Your task to perform on an android device: find which apps use the phone's location Image 0: 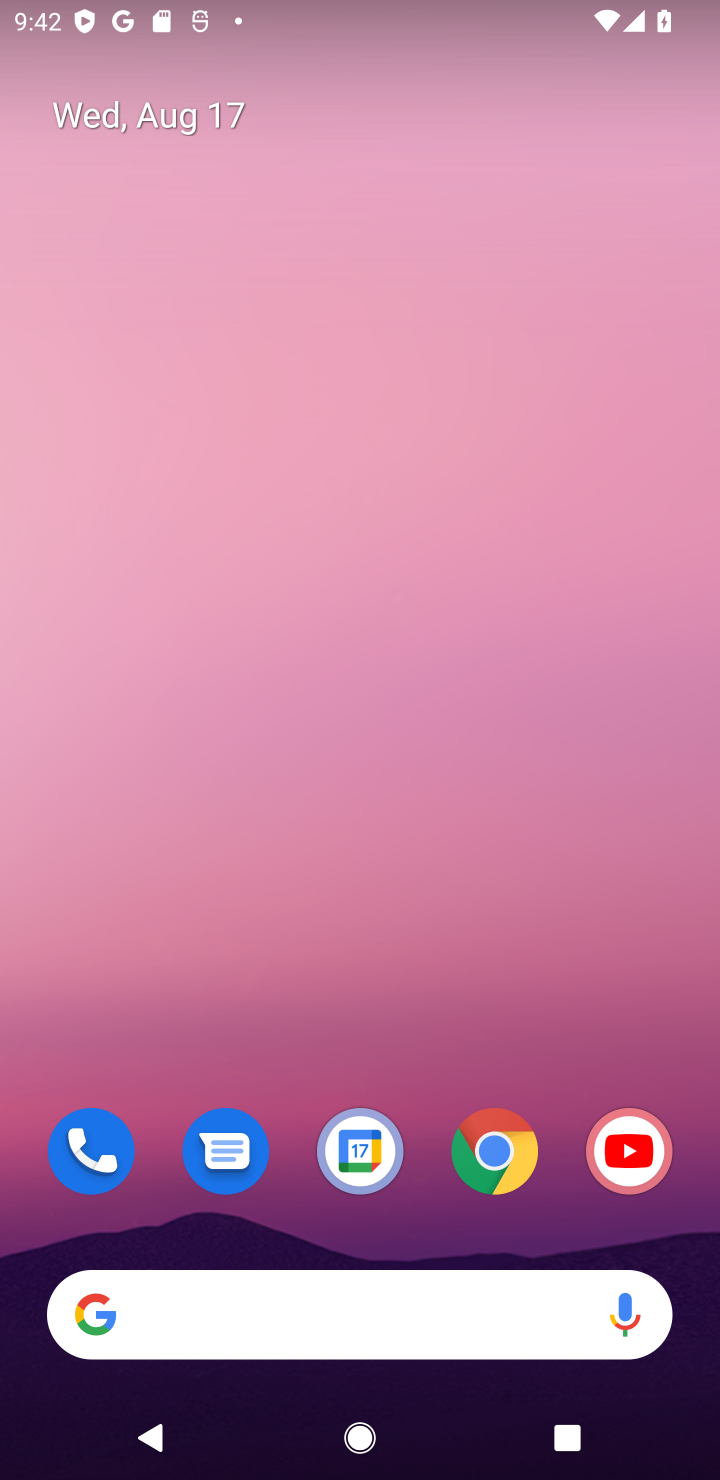
Step 0: drag from (327, 1202) to (133, 137)
Your task to perform on an android device: find which apps use the phone's location Image 1: 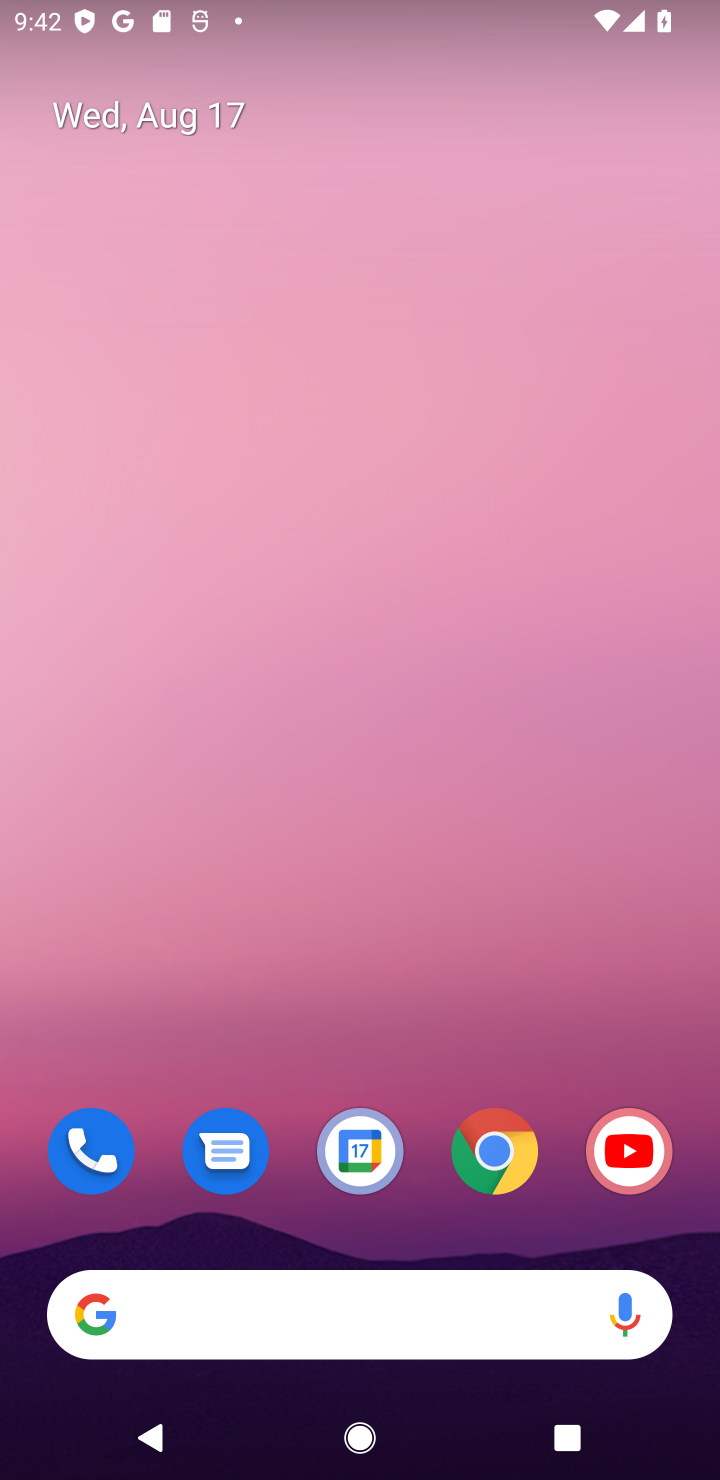
Step 1: drag from (336, 528) to (336, 444)
Your task to perform on an android device: find which apps use the phone's location Image 2: 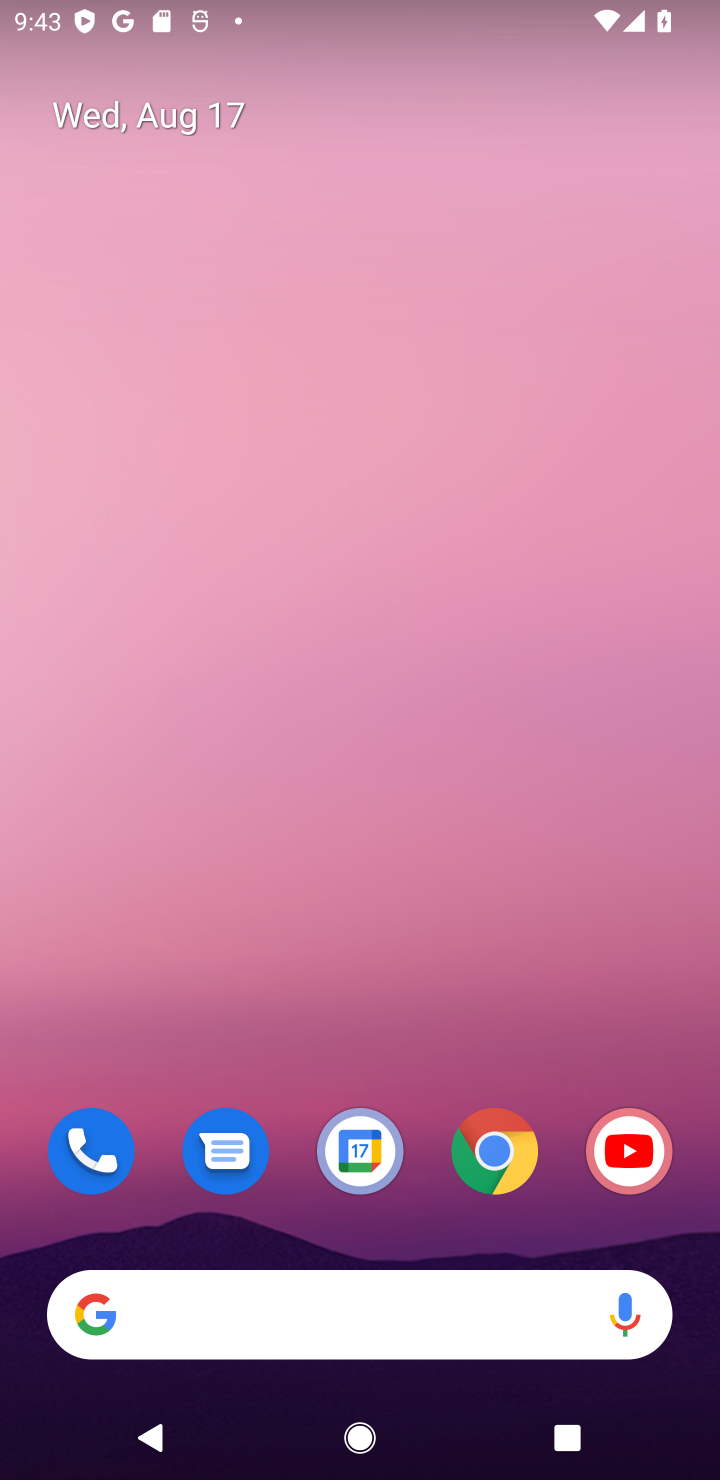
Step 2: drag from (382, 954) to (108, 0)
Your task to perform on an android device: find which apps use the phone's location Image 3: 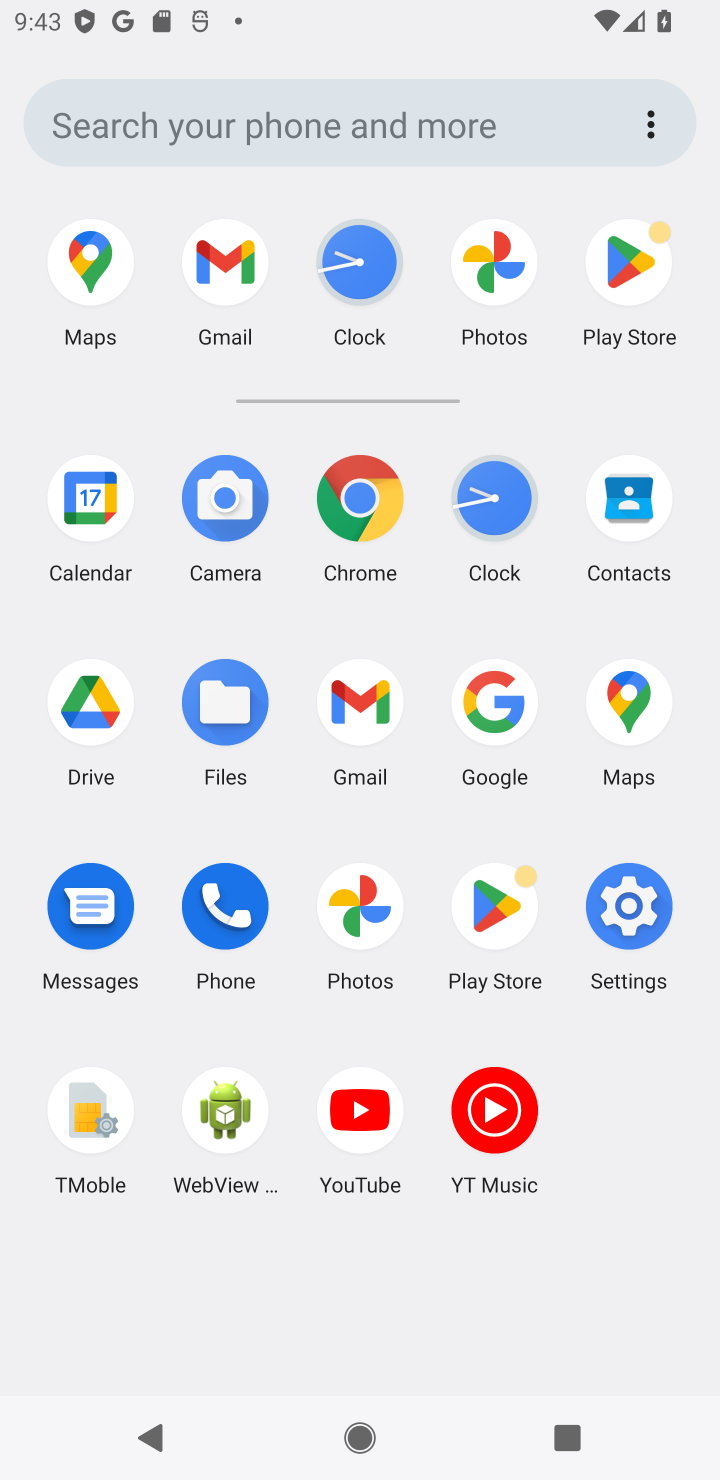
Step 3: click (633, 895)
Your task to perform on an android device: find which apps use the phone's location Image 4: 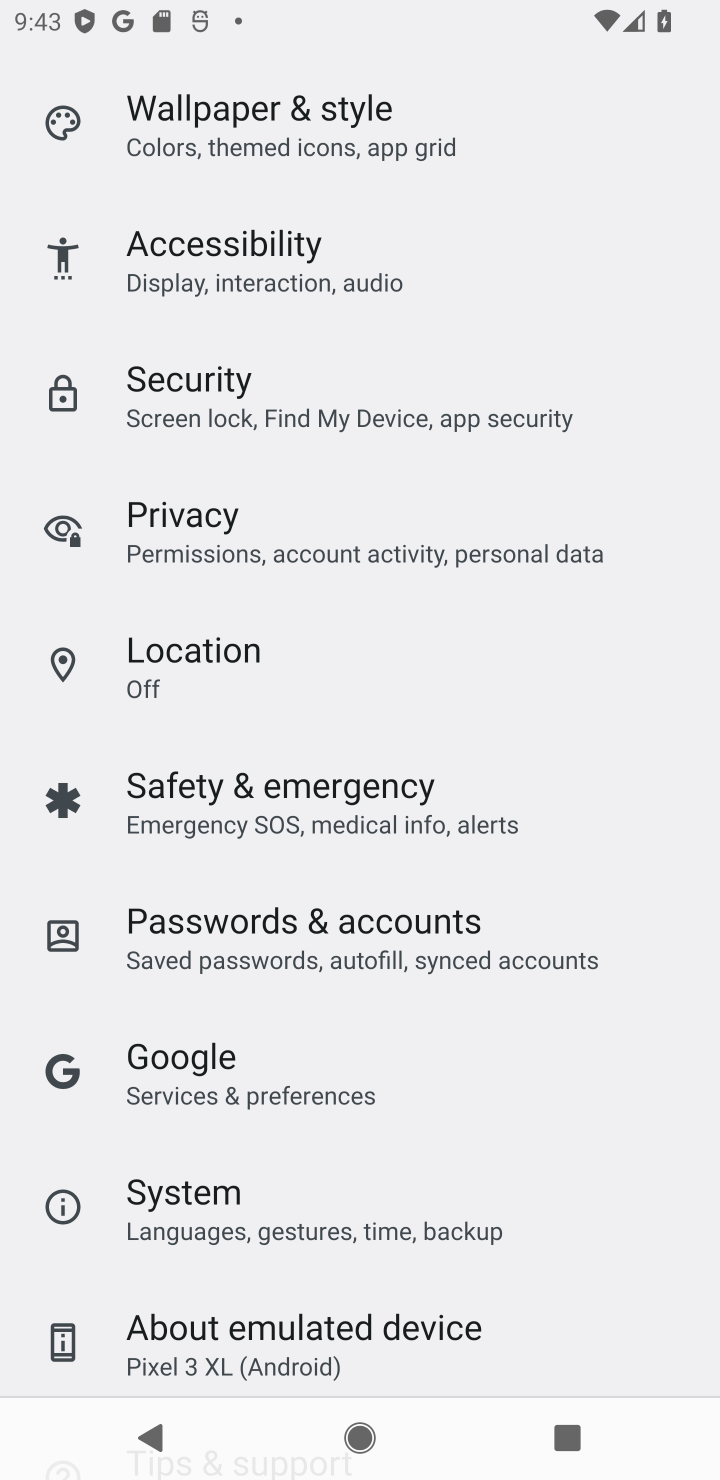
Step 4: click (285, 691)
Your task to perform on an android device: find which apps use the phone's location Image 5: 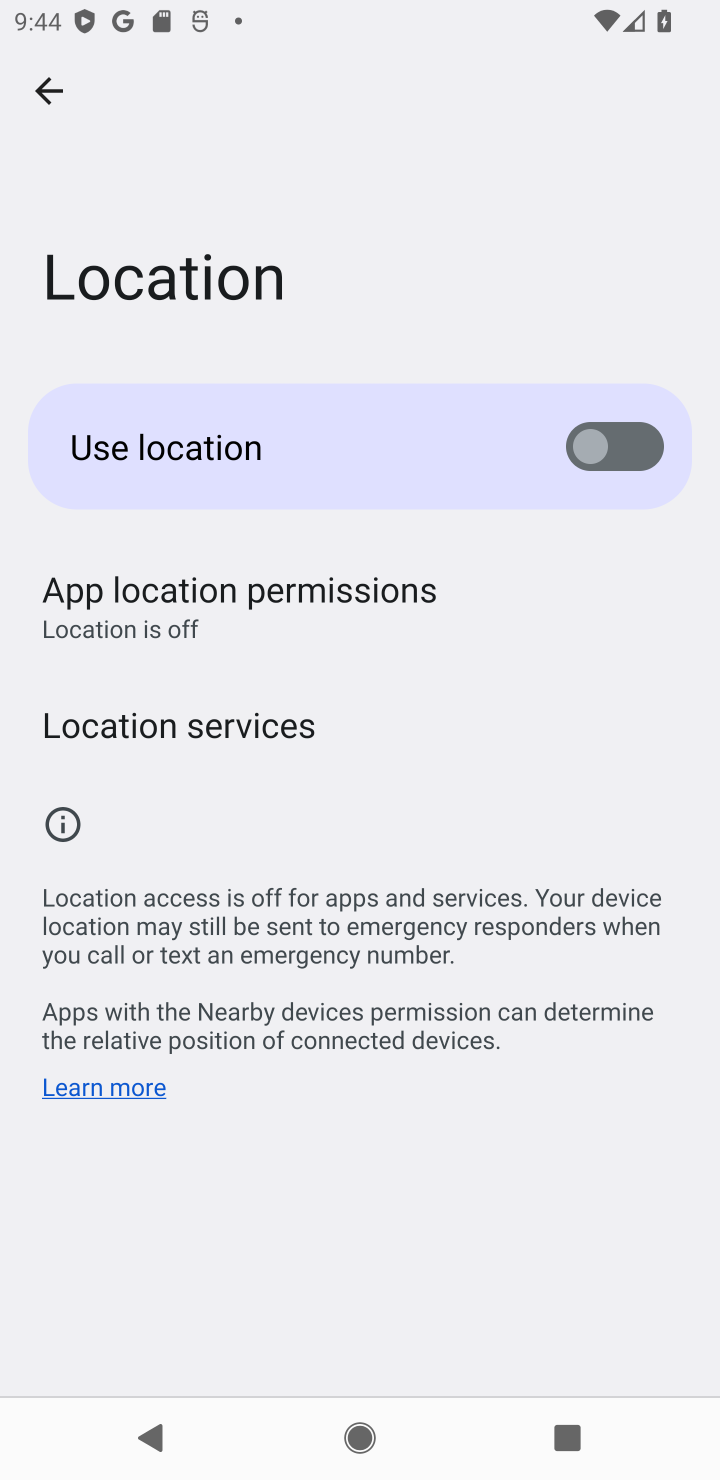
Step 5: click (232, 619)
Your task to perform on an android device: find which apps use the phone's location Image 6: 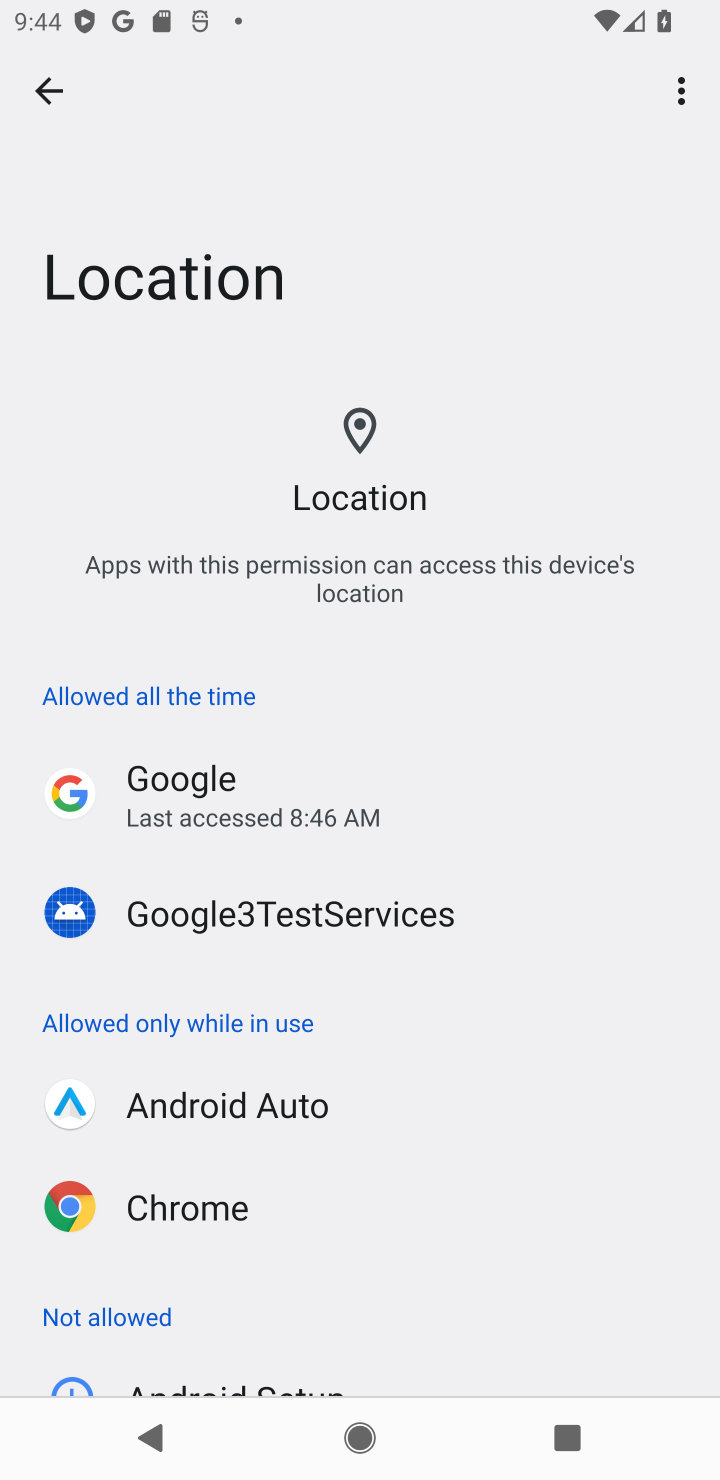
Step 6: task complete